Your task to perform on an android device: add a label to a message in the gmail app Image 0: 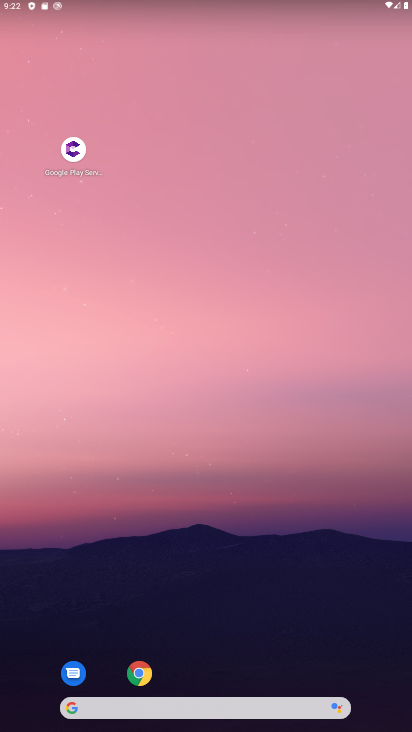
Step 0: drag from (21, 602) to (219, 106)
Your task to perform on an android device: add a label to a message in the gmail app Image 1: 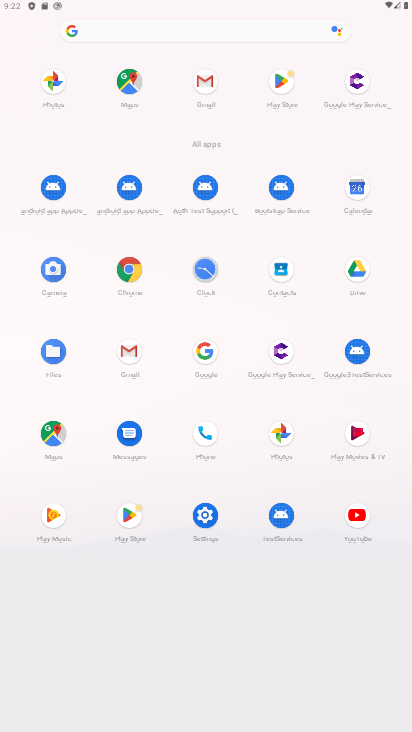
Step 1: click (192, 96)
Your task to perform on an android device: add a label to a message in the gmail app Image 2: 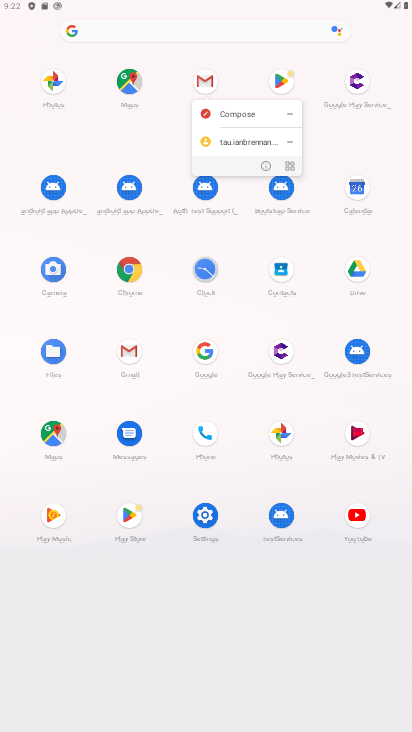
Step 2: click (195, 73)
Your task to perform on an android device: add a label to a message in the gmail app Image 3: 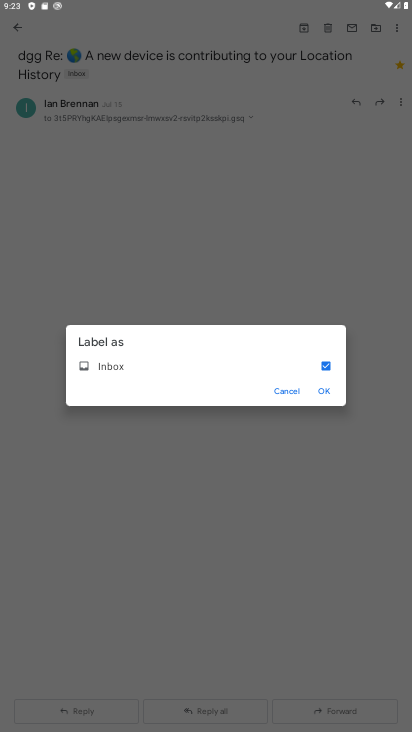
Step 3: click (325, 393)
Your task to perform on an android device: add a label to a message in the gmail app Image 4: 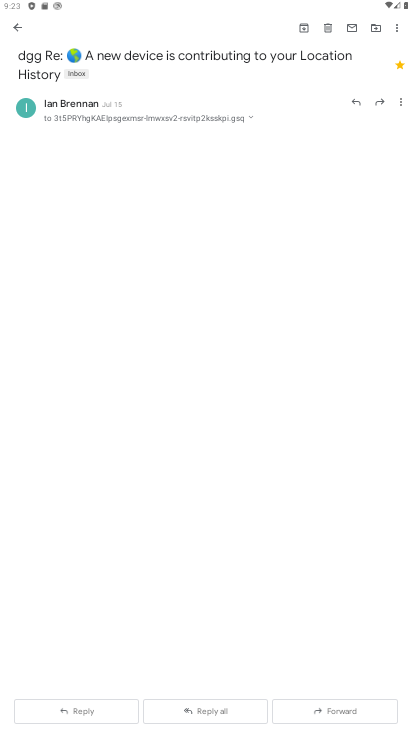
Step 4: task complete